Your task to perform on an android device: Open Wikipedia Image 0: 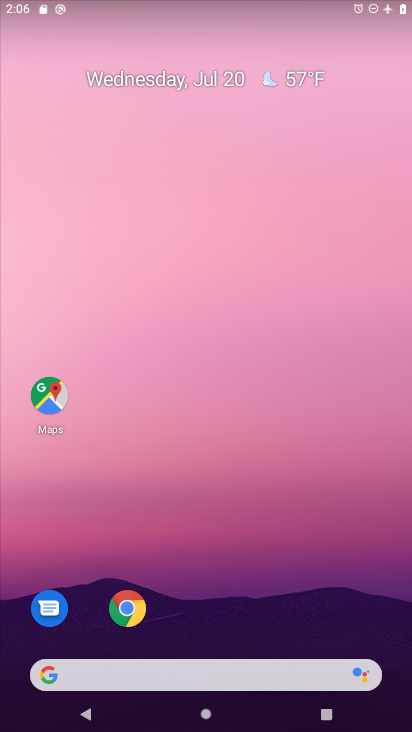
Step 0: click (278, 672)
Your task to perform on an android device: Open Wikipedia Image 1: 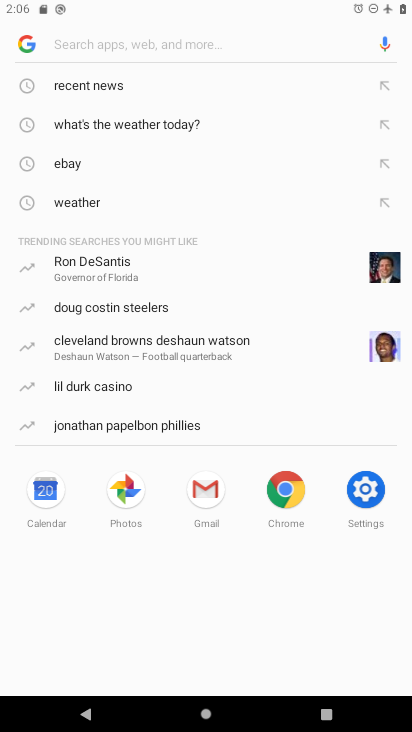
Step 1: type "wikipedia "
Your task to perform on an android device: Open Wikipedia Image 2: 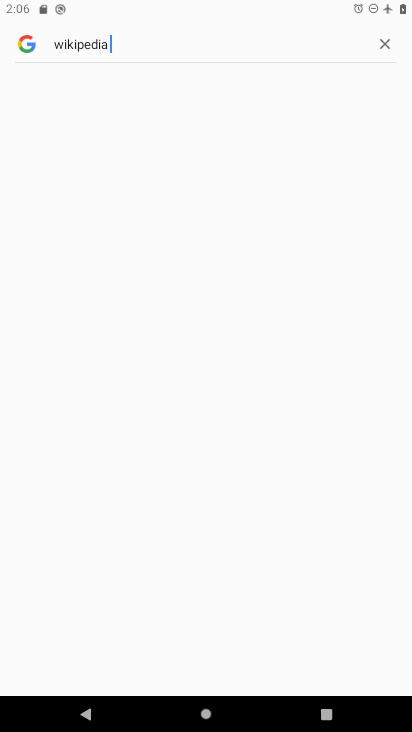
Step 2: press enter
Your task to perform on an android device: Open Wikipedia Image 3: 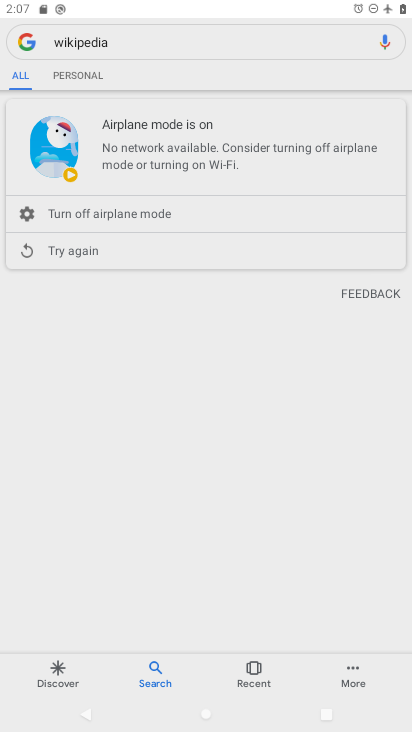
Step 3: task complete